Your task to perform on an android device: Open the stopwatch Image 0: 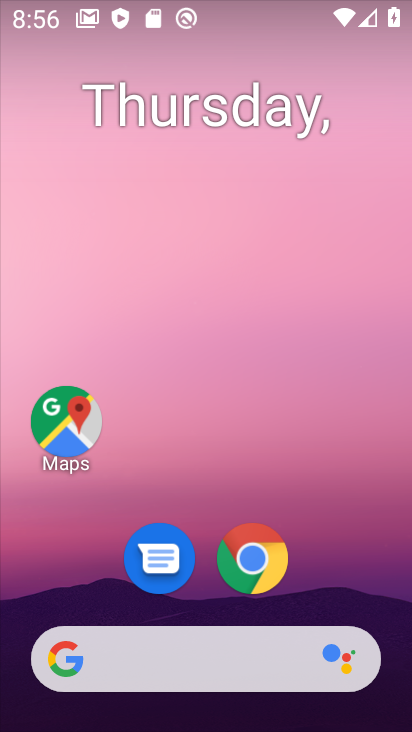
Step 0: drag from (394, 625) to (335, 126)
Your task to perform on an android device: Open the stopwatch Image 1: 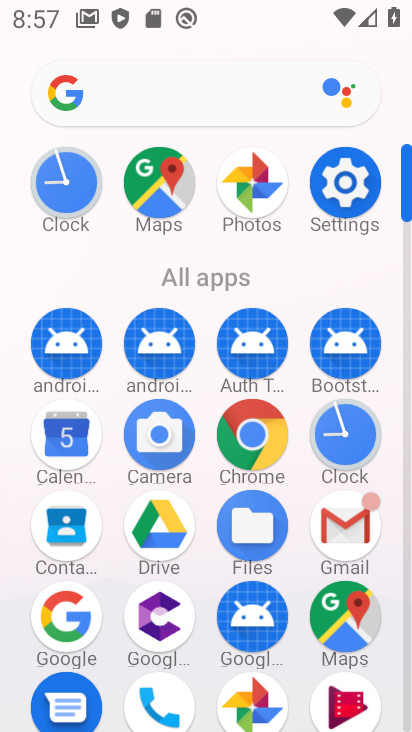
Step 1: click (407, 674)
Your task to perform on an android device: Open the stopwatch Image 2: 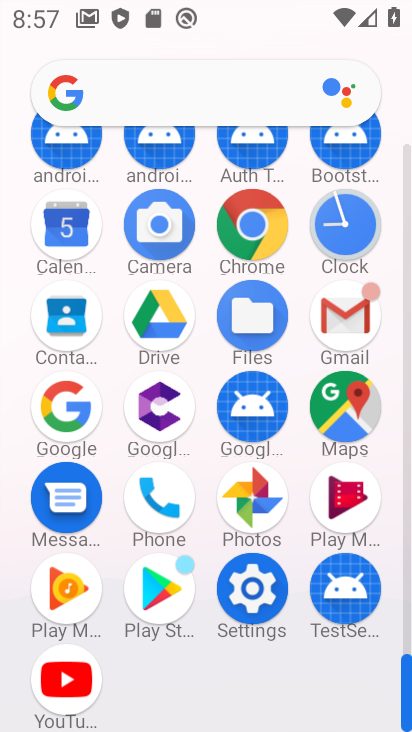
Step 2: click (342, 221)
Your task to perform on an android device: Open the stopwatch Image 3: 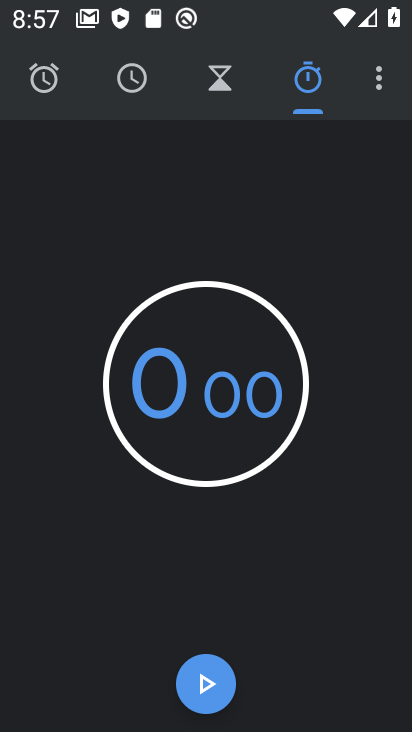
Step 3: task complete